Your task to perform on an android device: Go to Reddit.com Image 0: 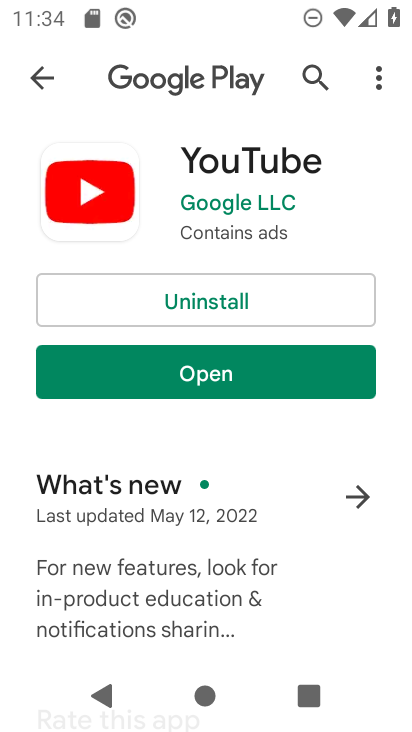
Step 0: press home button
Your task to perform on an android device: Go to Reddit.com Image 1: 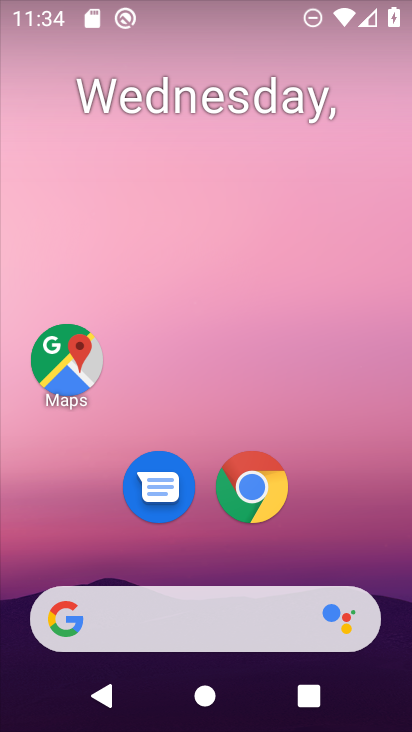
Step 1: drag from (348, 508) to (278, 76)
Your task to perform on an android device: Go to Reddit.com Image 2: 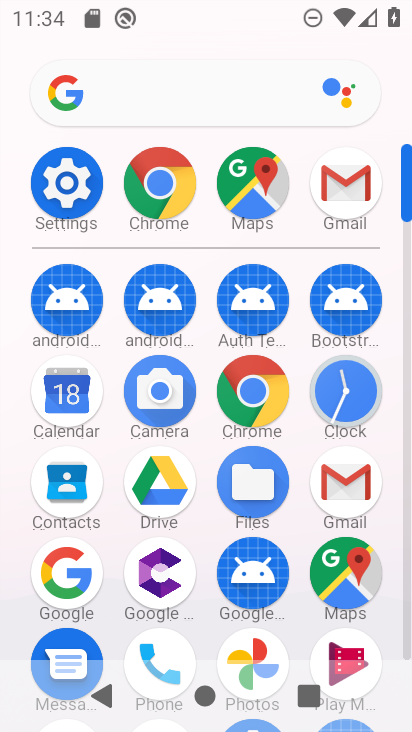
Step 2: click (154, 192)
Your task to perform on an android device: Go to Reddit.com Image 3: 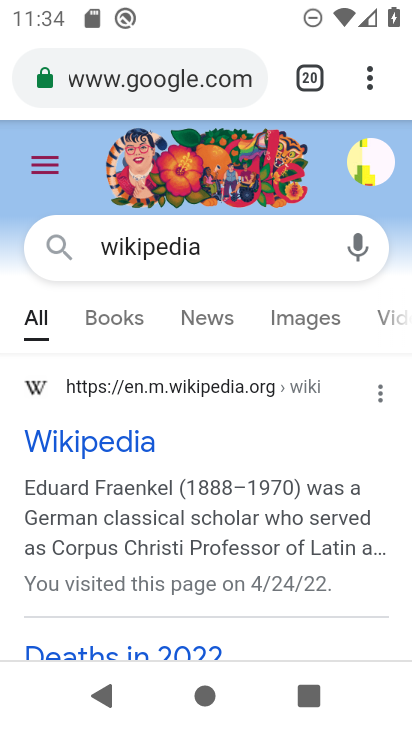
Step 3: click (368, 72)
Your task to perform on an android device: Go to Reddit.com Image 4: 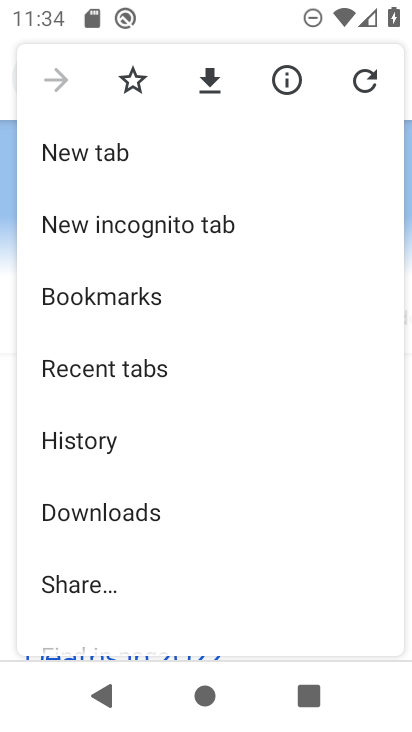
Step 4: click (119, 155)
Your task to perform on an android device: Go to Reddit.com Image 5: 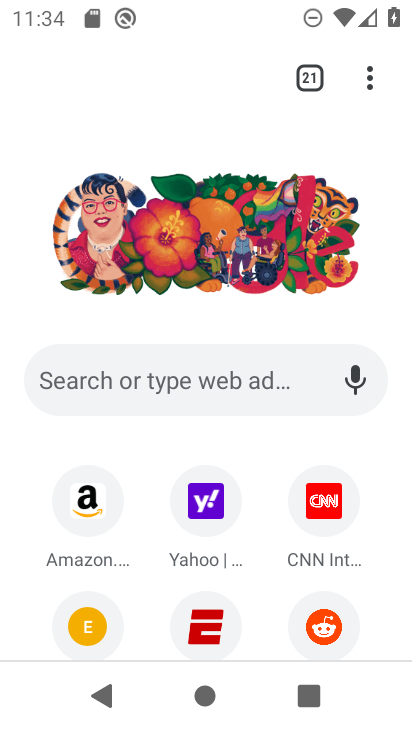
Step 5: click (325, 615)
Your task to perform on an android device: Go to Reddit.com Image 6: 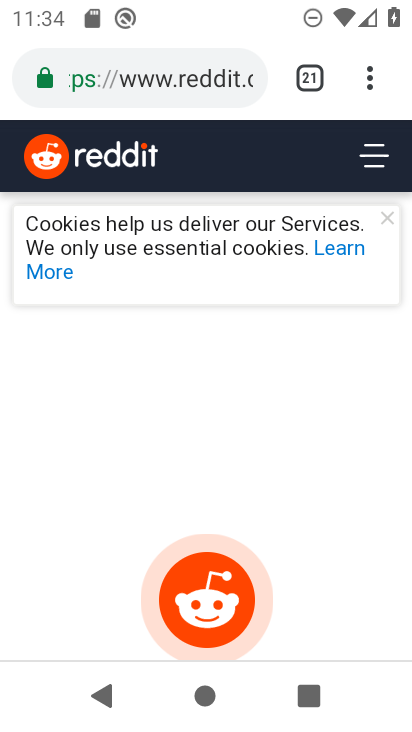
Step 6: task complete